Your task to perform on an android device: set an alarm Image 0: 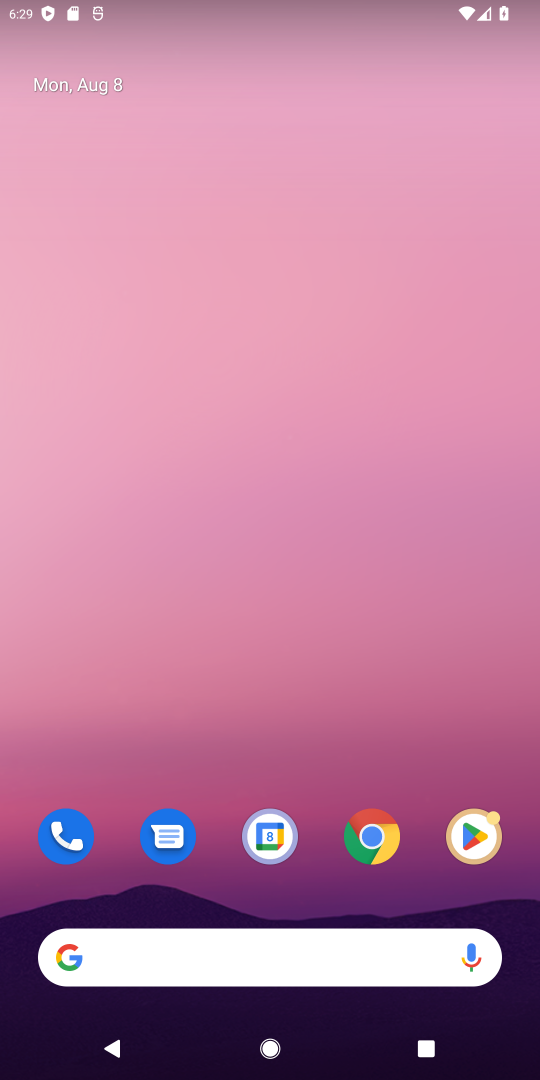
Step 0: drag from (304, 518) to (417, 0)
Your task to perform on an android device: set an alarm Image 1: 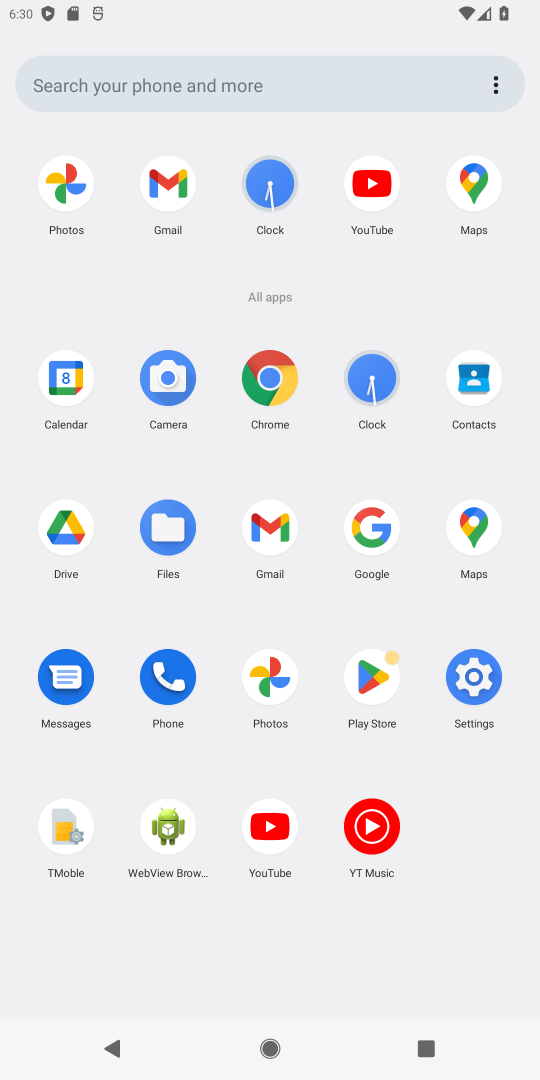
Step 1: click (379, 388)
Your task to perform on an android device: set an alarm Image 2: 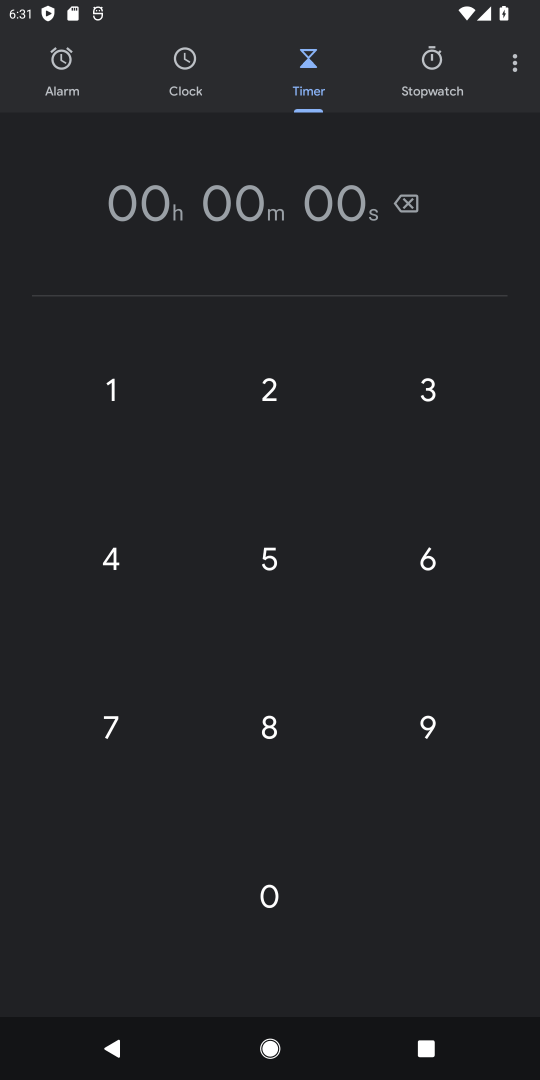
Step 2: click (57, 89)
Your task to perform on an android device: set an alarm Image 3: 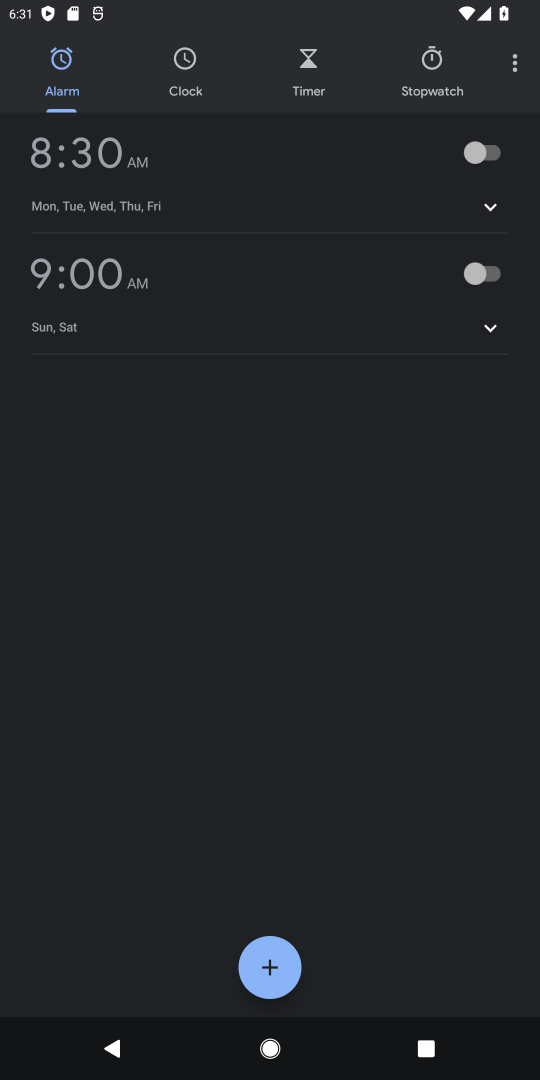
Step 3: click (470, 160)
Your task to perform on an android device: set an alarm Image 4: 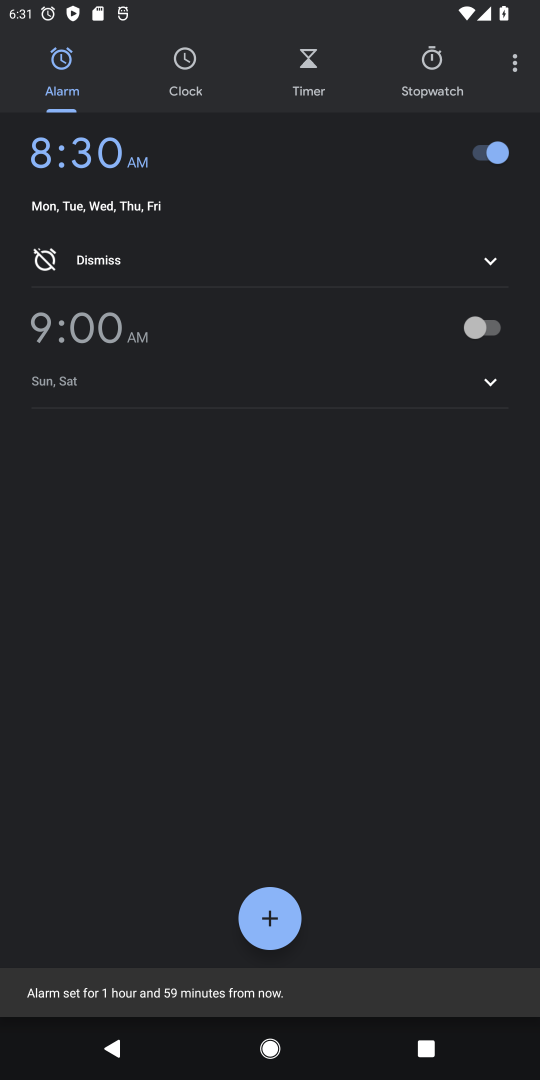
Step 4: task complete